Your task to perform on an android device: Open accessibility settings Image 0: 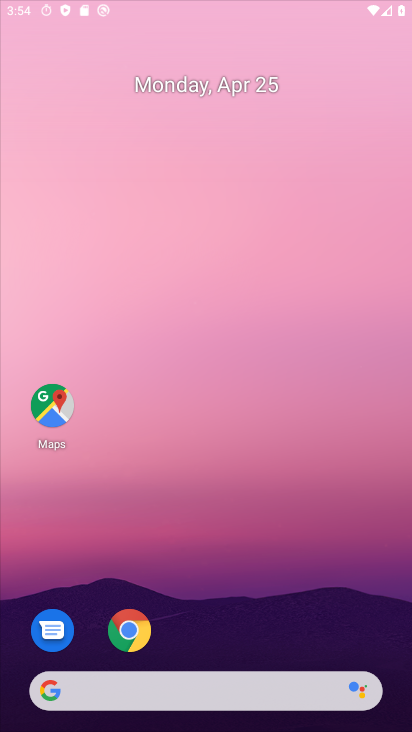
Step 0: click (306, 97)
Your task to perform on an android device: Open accessibility settings Image 1: 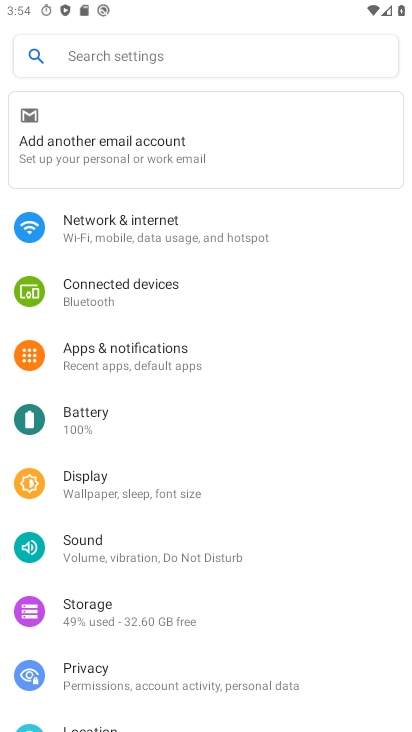
Step 1: drag from (63, 624) to (179, 146)
Your task to perform on an android device: Open accessibility settings Image 2: 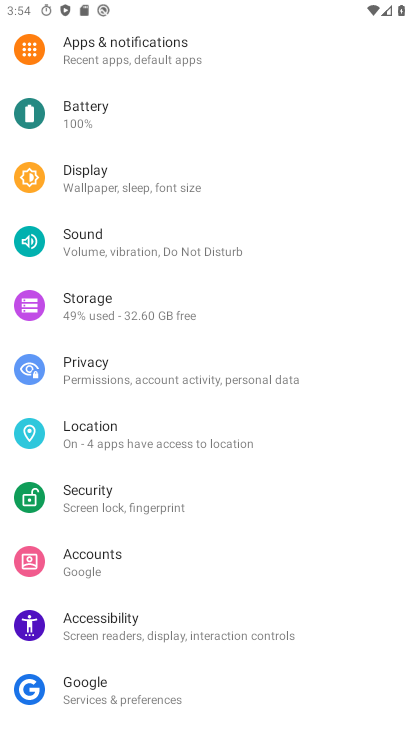
Step 2: drag from (199, 554) to (218, 170)
Your task to perform on an android device: Open accessibility settings Image 3: 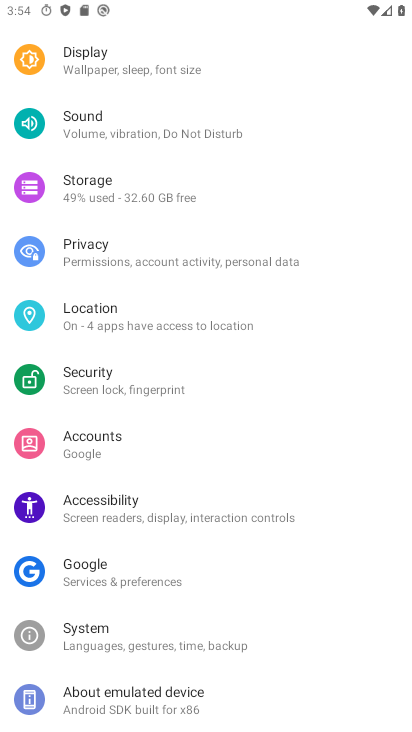
Step 3: click (126, 507)
Your task to perform on an android device: Open accessibility settings Image 4: 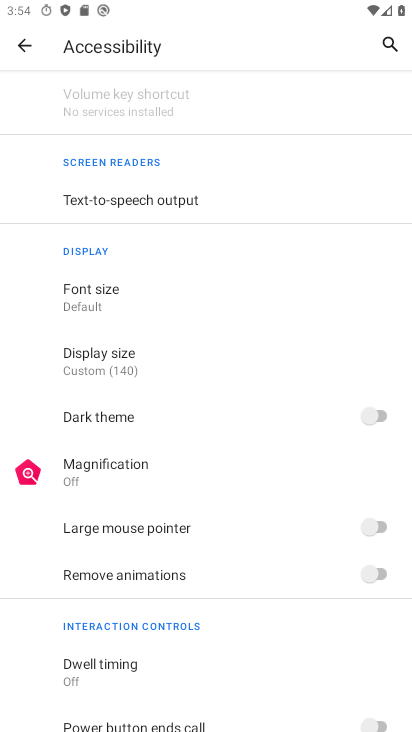
Step 4: click (283, 635)
Your task to perform on an android device: Open accessibility settings Image 5: 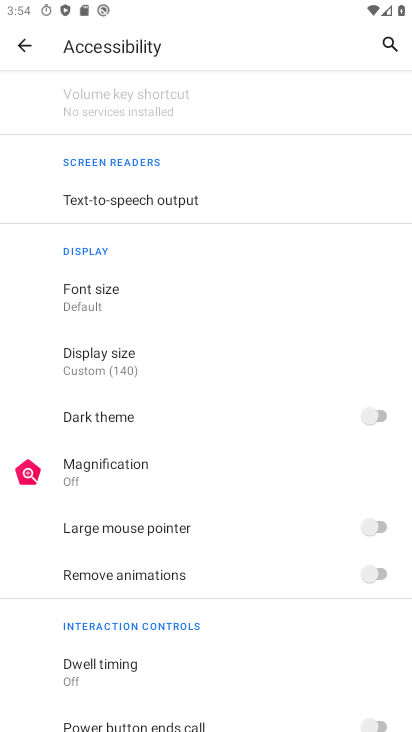
Step 5: task complete